Your task to perform on an android device: turn on sleep mode Image 0: 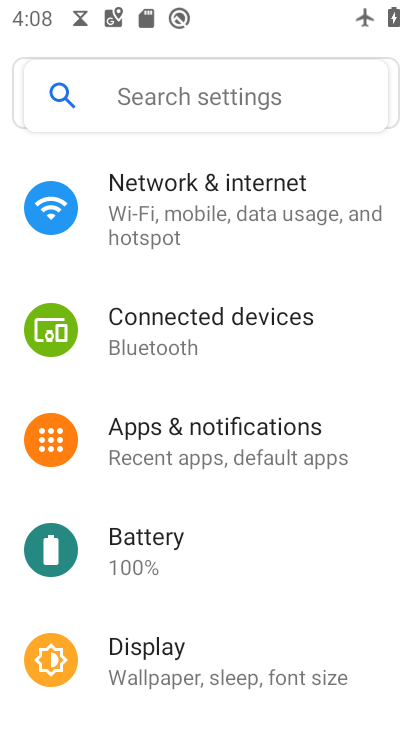
Step 0: drag from (164, 523) to (164, 15)
Your task to perform on an android device: turn on sleep mode Image 1: 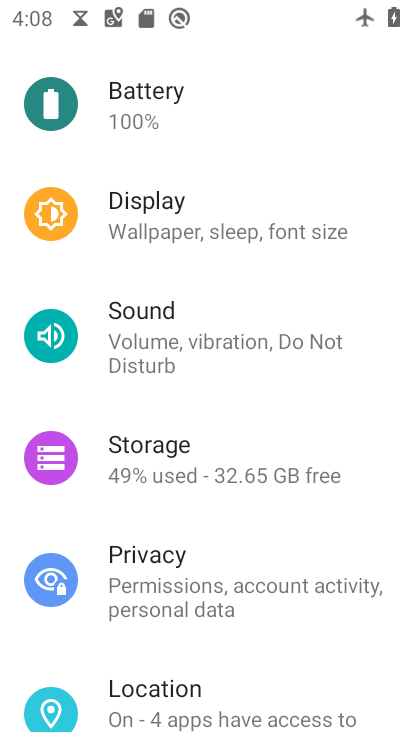
Step 1: task complete